Your task to perform on an android device: Search for seafood restaurants on Google Maps Image 0: 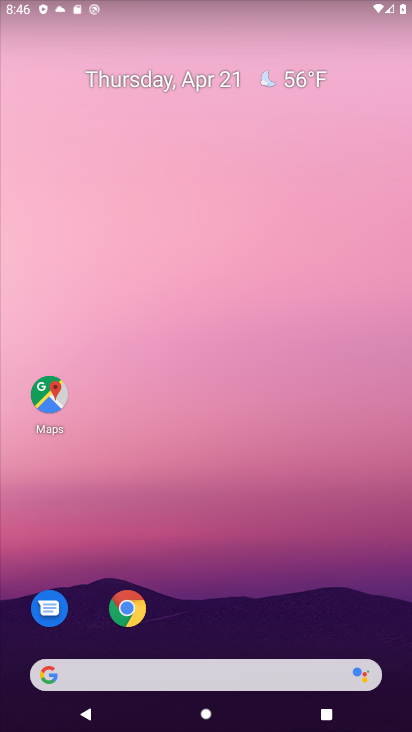
Step 0: click (47, 398)
Your task to perform on an android device: Search for seafood restaurants on Google Maps Image 1: 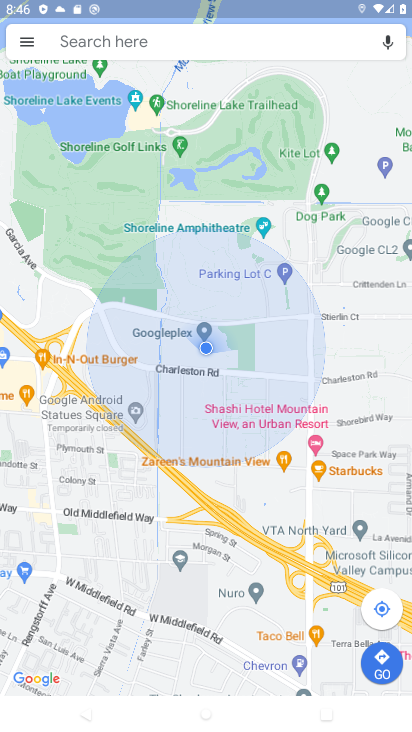
Step 1: click (187, 34)
Your task to perform on an android device: Search for seafood restaurants on Google Maps Image 2: 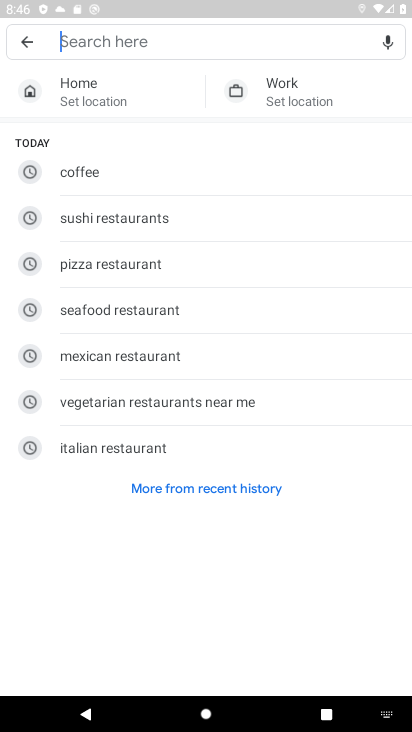
Step 2: click (160, 306)
Your task to perform on an android device: Search for seafood restaurants on Google Maps Image 3: 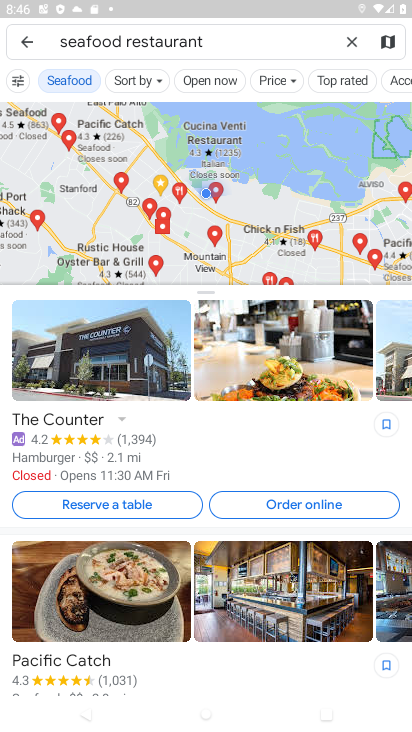
Step 3: task complete